Your task to perform on an android device: open device folders in google photos Image 0: 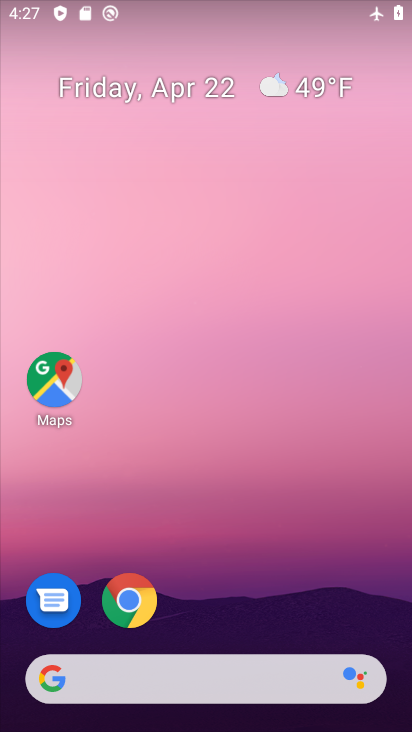
Step 0: drag from (226, 522) to (231, 38)
Your task to perform on an android device: open device folders in google photos Image 1: 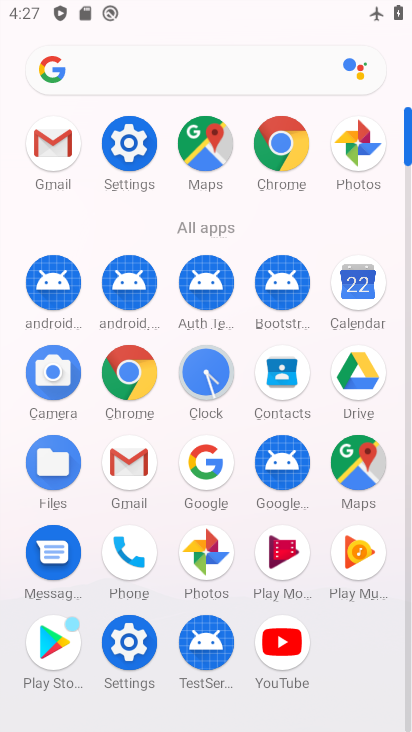
Step 1: click (206, 550)
Your task to perform on an android device: open device folders in google photos Image 2: 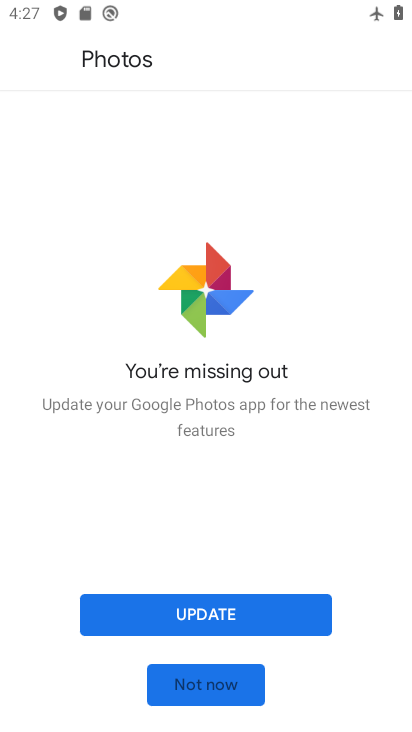
Step 2: click (208, 607)
Your task to perform on an android device: open device folders in google photos Image 3: 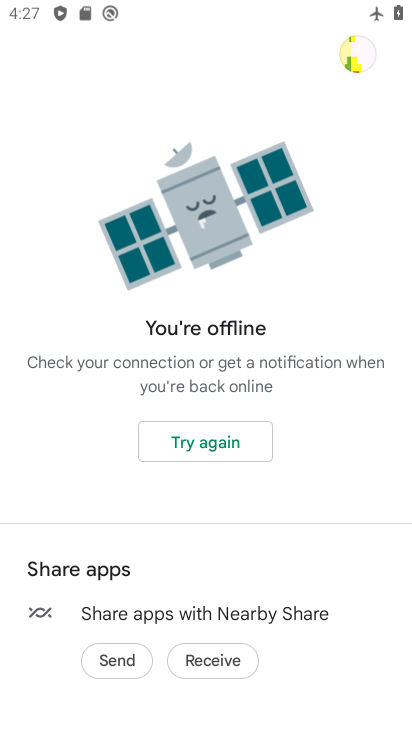
Step 3: press home button
Your task to perform on an android device: open device folders in google photos Image 4: 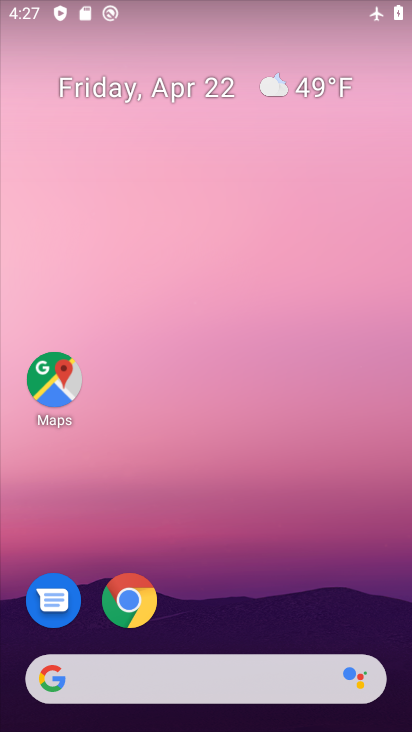
Step 4: drag from (208, 533) to (217, 26)
Your task to perform on an android device: open device folders in google photos Image 5: 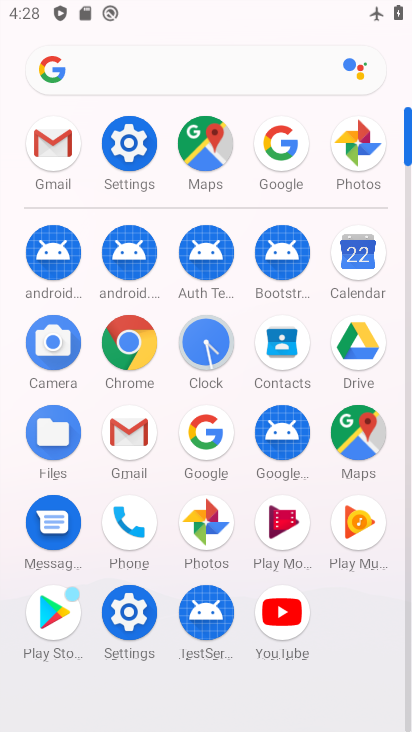
Step 5: click (131, 143)
Your task to perform on an android device: open device folders in google photos Image 6: 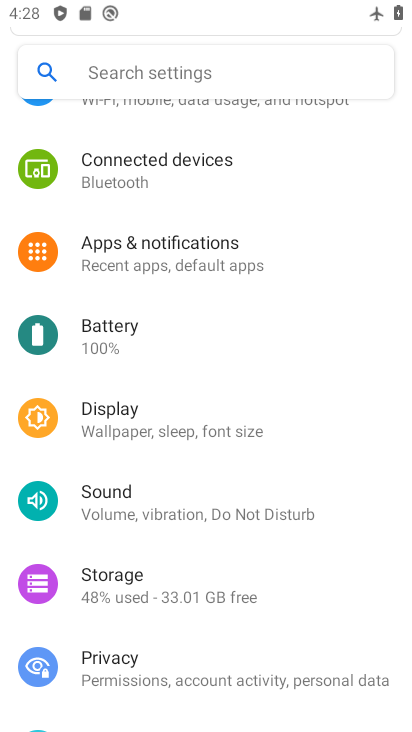
Step 6: drag from (156, 310) to (205, 419)
Your task to perform on an android device: open device folders in google photos Image 7: 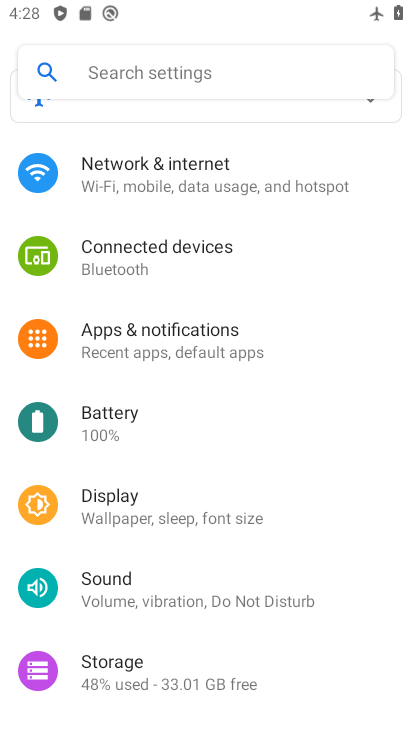
Step 7: click (164, 166)
Your task to perform on an android device: open device folders in google photos Image 8: 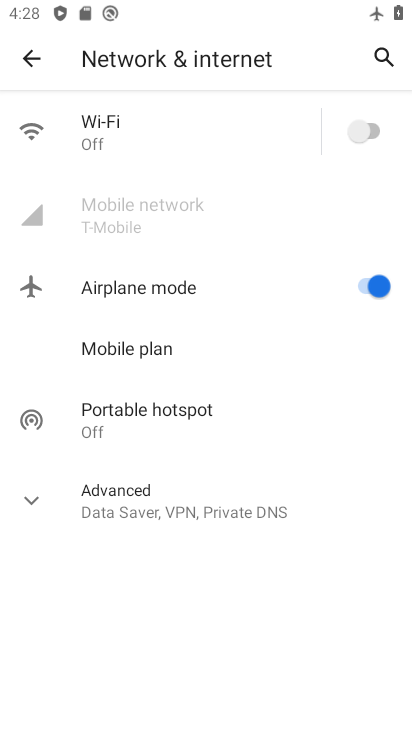
Step 8: click (374, 289)
Your task to perform on an android device: open device folders in google photos Image 9: 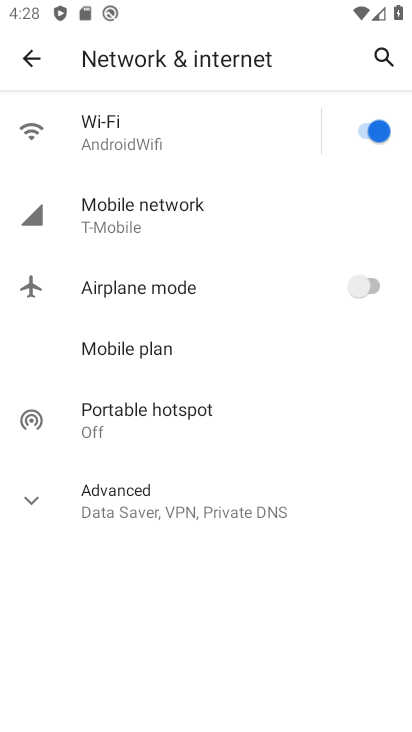
Step 9: press back button
Your task to perform on an android device: open device folders in google photos Image 10: 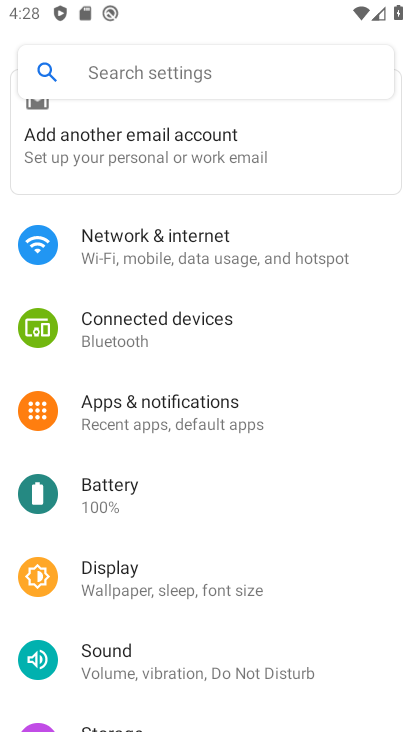
Step 10: press back button
Your task to perform on an android device: open device folders in google photos Image 11: 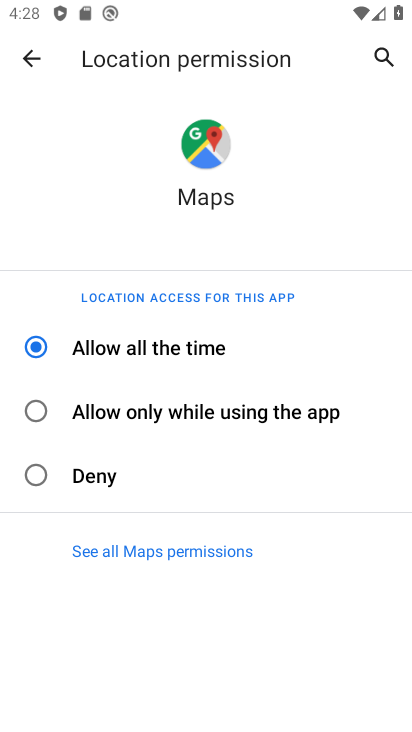
Step 11: press home button
Your task to perform on an android device: open device folders in google photos Image 12: 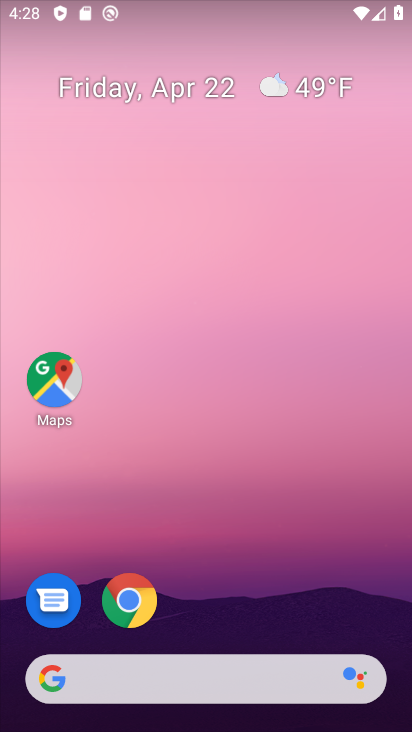
Step 12: drag from (240, 598) to (247, 28)
Your task to perform on an android device: open device folders in google photos Image 13: 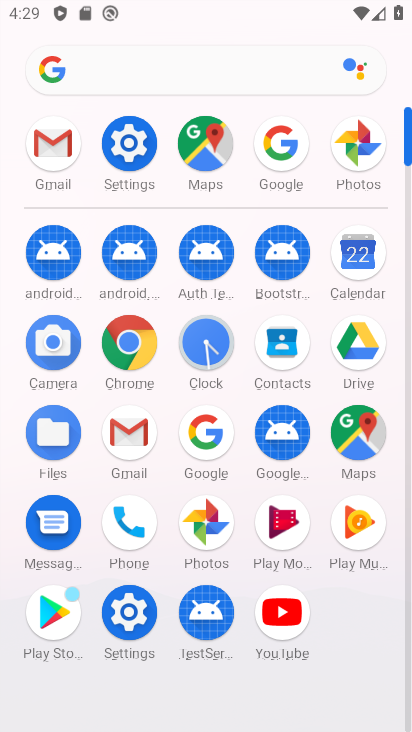
Step 13: click (361, 139)
Your task to perform on an android device: open device folders in google photos Image 14: 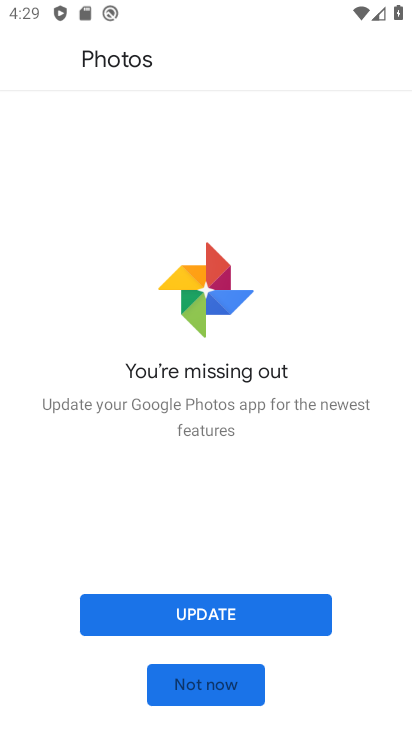
Step 14: click (205, 614)
Your task to perform on an android device: open device folders in google photos Image 15: 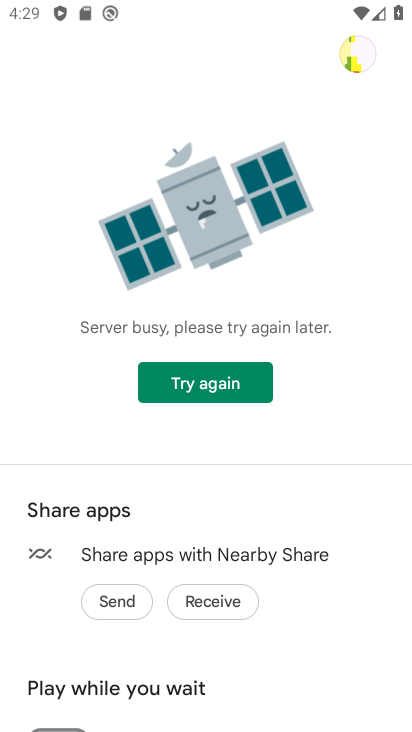
Step 15: click (188, 392)
Your task to perform on an android device: open device folders in google photos Image 16: 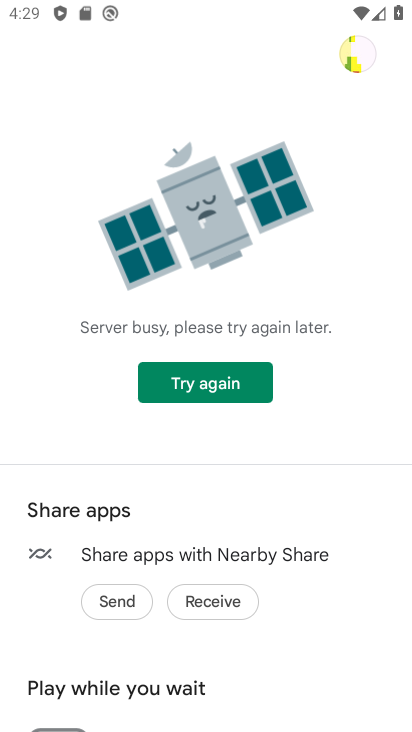
Step 16: task complete